Your task to perform on an android device: turn on javascript in the chrome app Image 0: 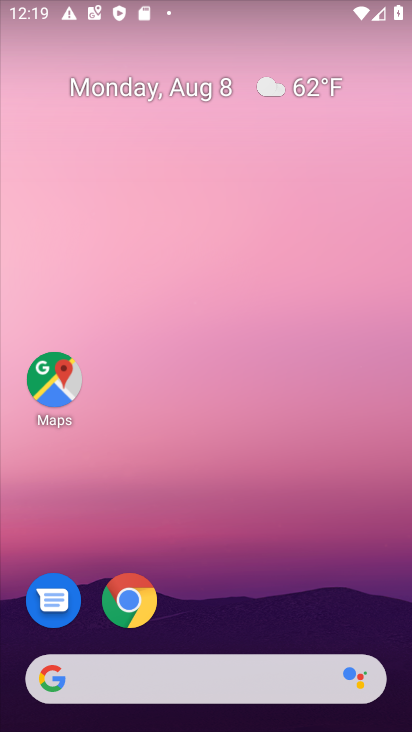
Step 0: click (143, 612)
Your task to perform on an android device: turn on javascript in the chrome app Image 1: 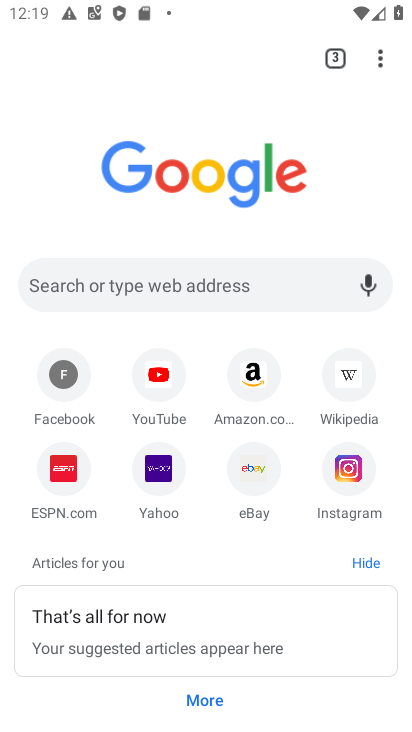
Step 1: click (374, 63)
Your task to perform on an android device: turn on javascript in the chrome app Image 2: 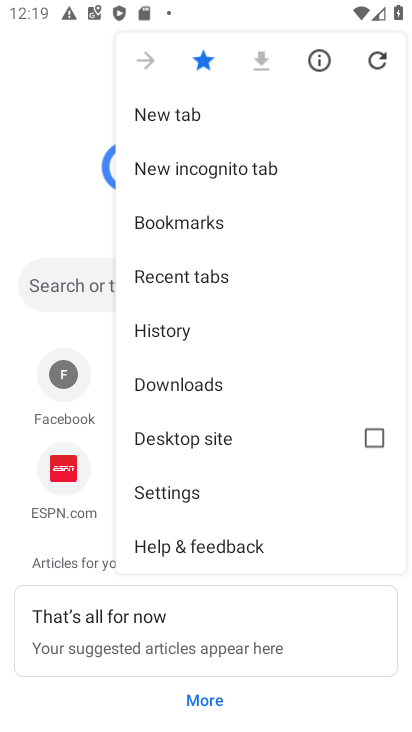
Step 2: click (203, 490)
Your task to perform on an android device: turn on javascript in the chrome app Image 3: 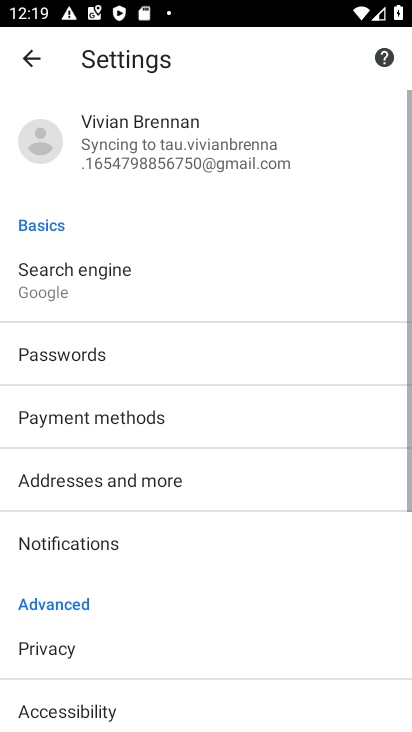
Step 3: drag from (165, 629) to (130, 182)
Your task to perform on an android device: turn on javascript in the chrome app Image 4: 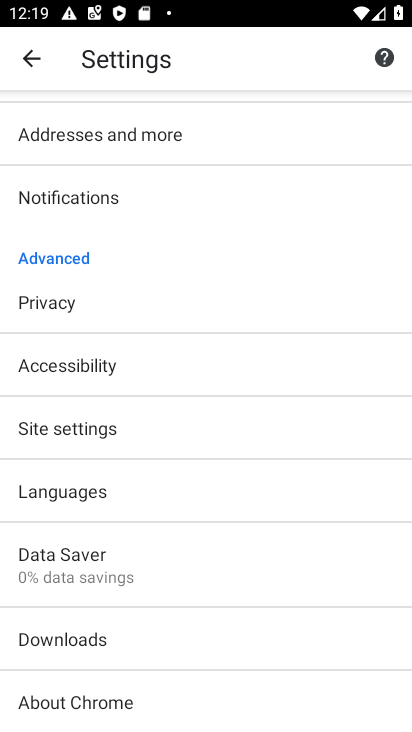
Step 4: click (125, 433)
Your task to perform on an android device: turn on javascript in the chrome app Image 5: 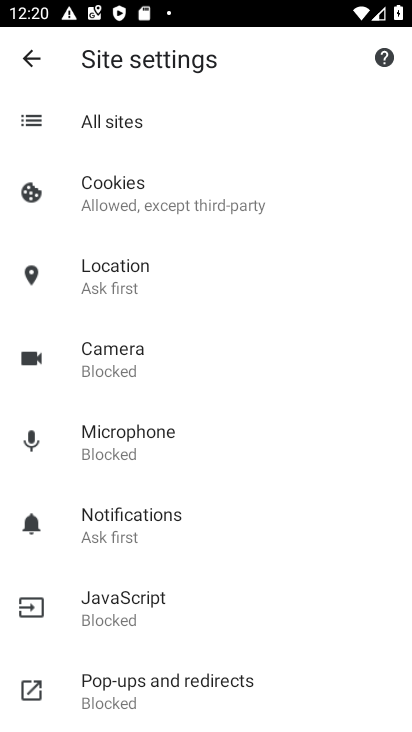
Step 5: click (182, 608)
Your task to perform on an android device: turn on javascript in the chrome app Image 6: 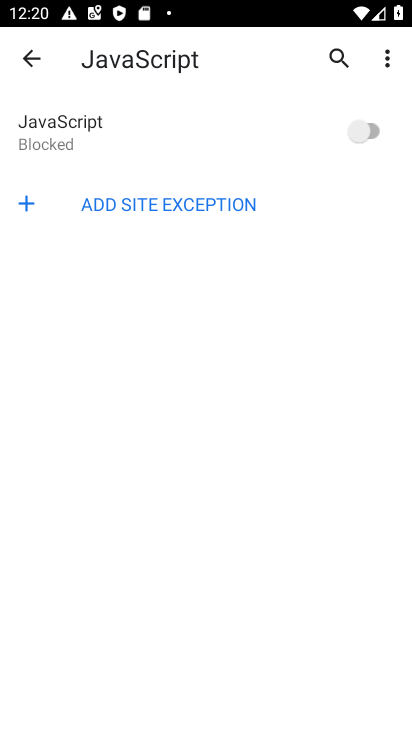
Step 6: click (388, 123)
Your task to perform on an android device: turn on javascript in the chrome app Image 7: 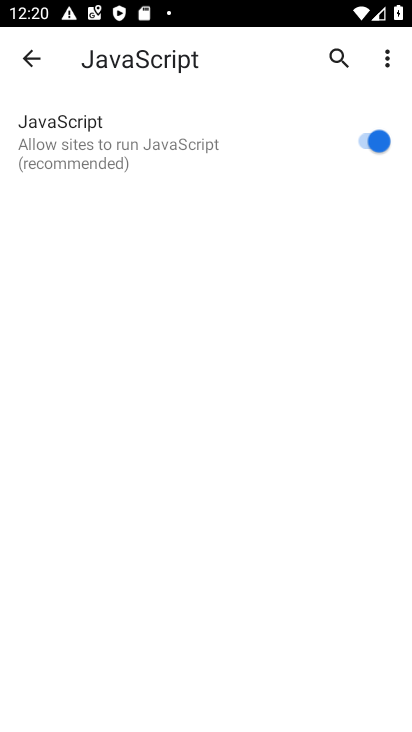
Step 7: task complete